Your task to perform on an android device: Search for Mexican restaurants on Maps Image 0: 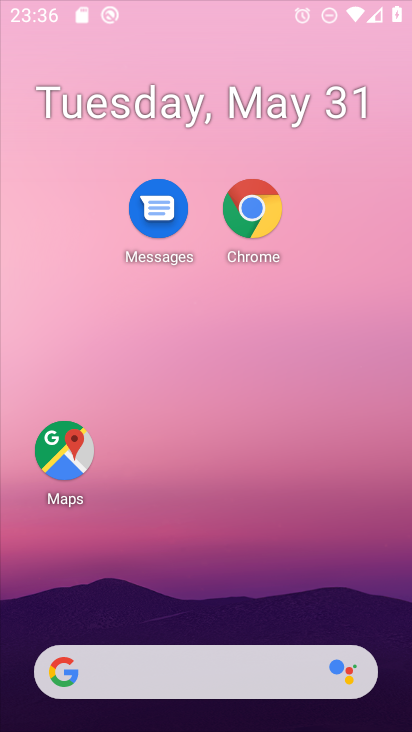
Step 0: press home button
Your task to perform on an android device: Search for Mexican restaurants on Maps Image 1: 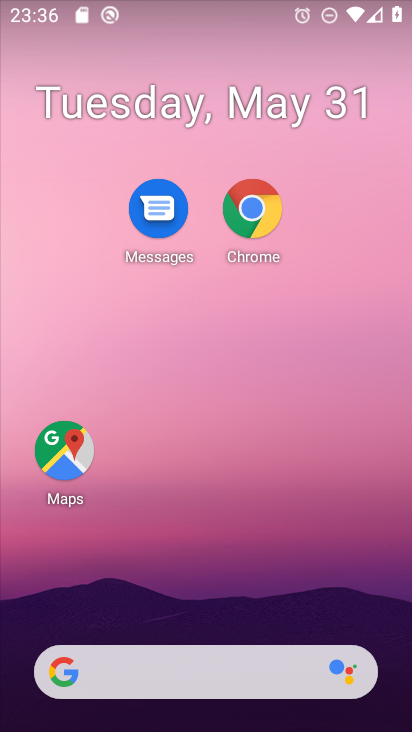
Step 1: click (63, 445)
Your task to perform on an android device: Search for Mexican restaurants on Maps Image 2: 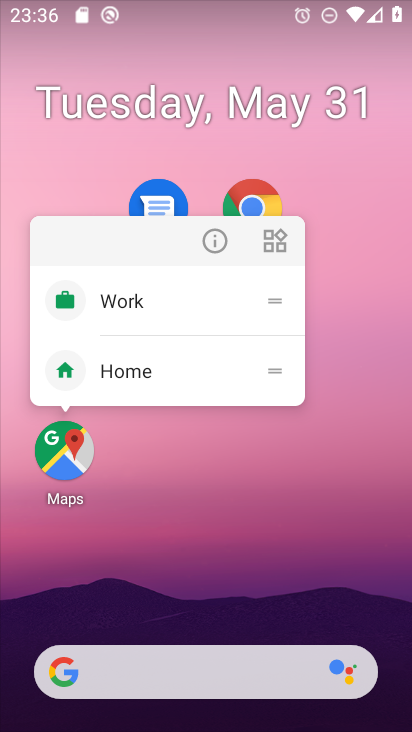
Step 2: click (64, 445)
Your task to perform on an android device: Search for Mexican restaurants on Maps Image 3: 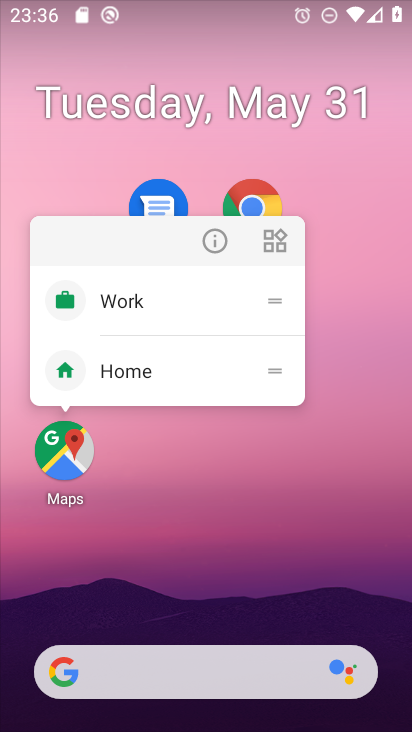
Step 3: click (64, 445)
Your task to perform on an android device: Search for Mexican restaurants on Maps Image 4: 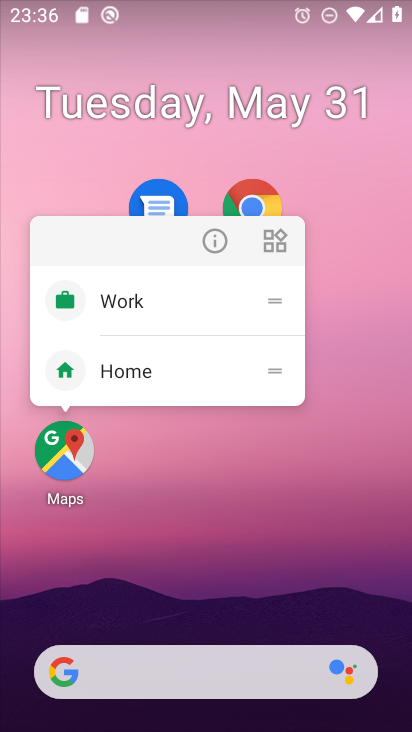
Step 4: click (64, 445)
Your task to perform on an android device: Search for Mexican restaurants on Maps Image 5: 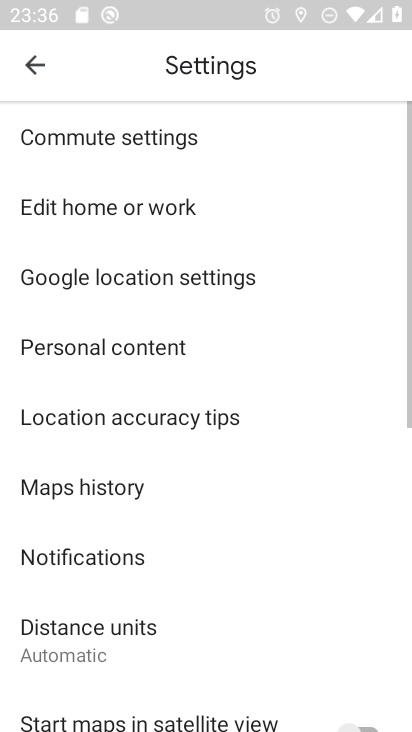
Step 5: click (38, 67)
Your task to perform on an android device: Search for Mexican restaurants on Maps Image 6: 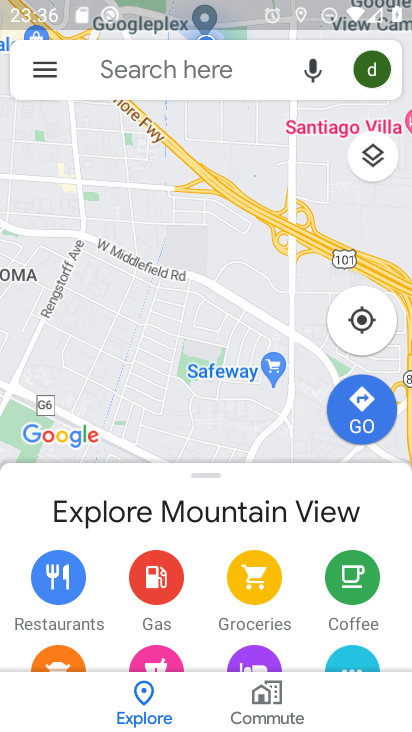
Step 6: click (138, 71)
Your task to perform on an android device: Search for Mexican restaurants on Maps Image 7: 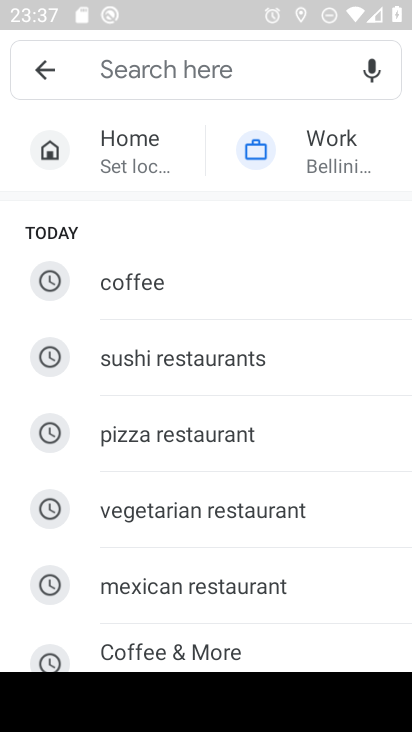
Step 7: click (308, 589)
Your task to perform on an android device: Search for Mexican restaurants on Maps Image 8: 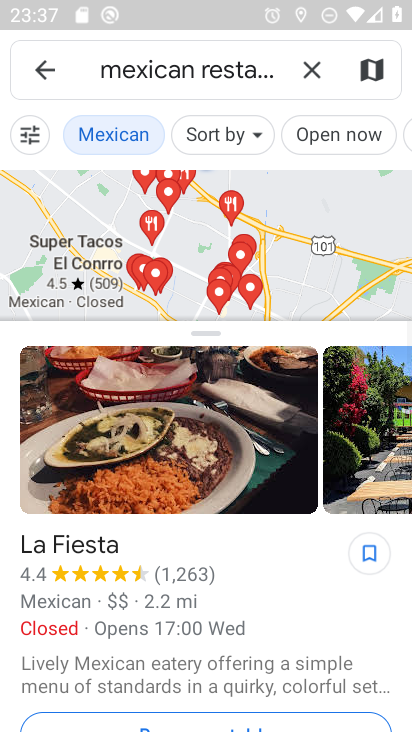
Step 8: task complete